Your task to perform on an android device: add a contact Image 0: 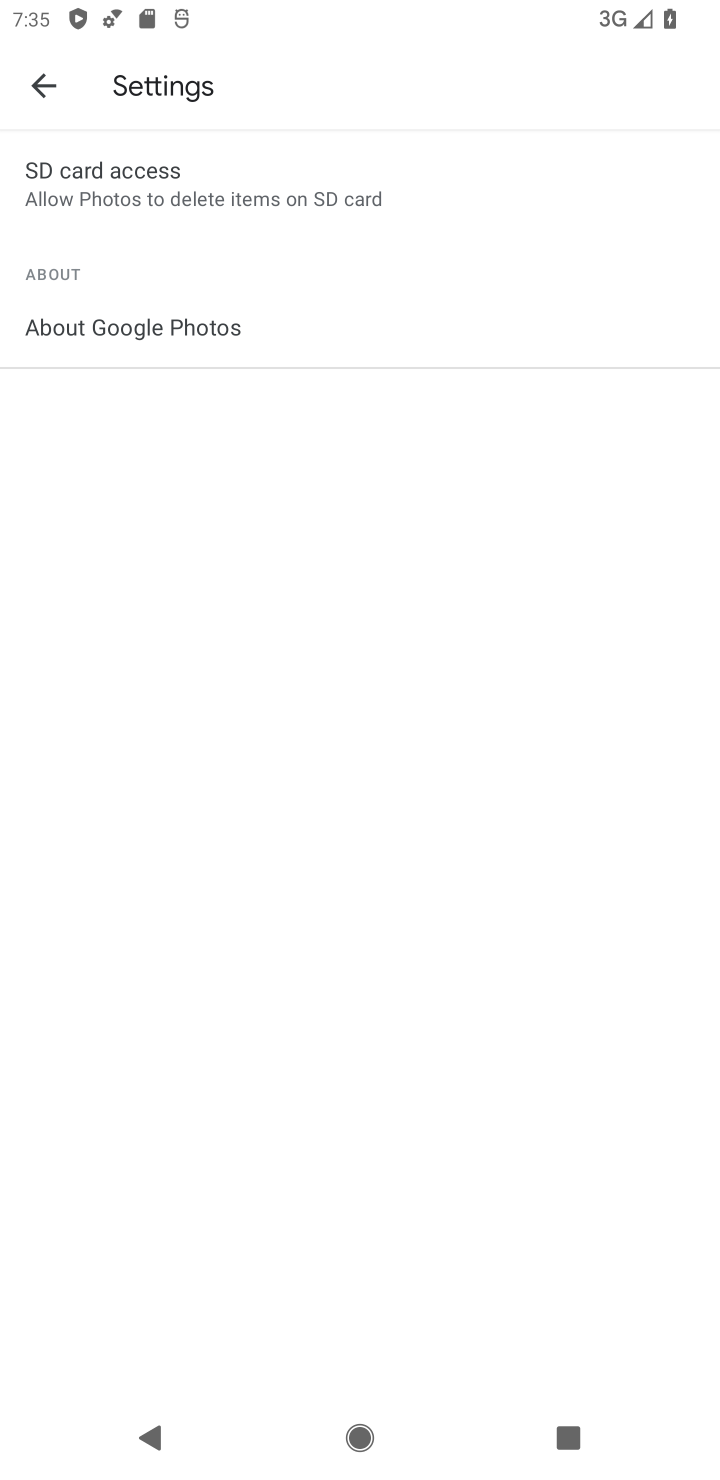
Step 0: press home button
Your task to perform on an android device: add a contact Image 1: 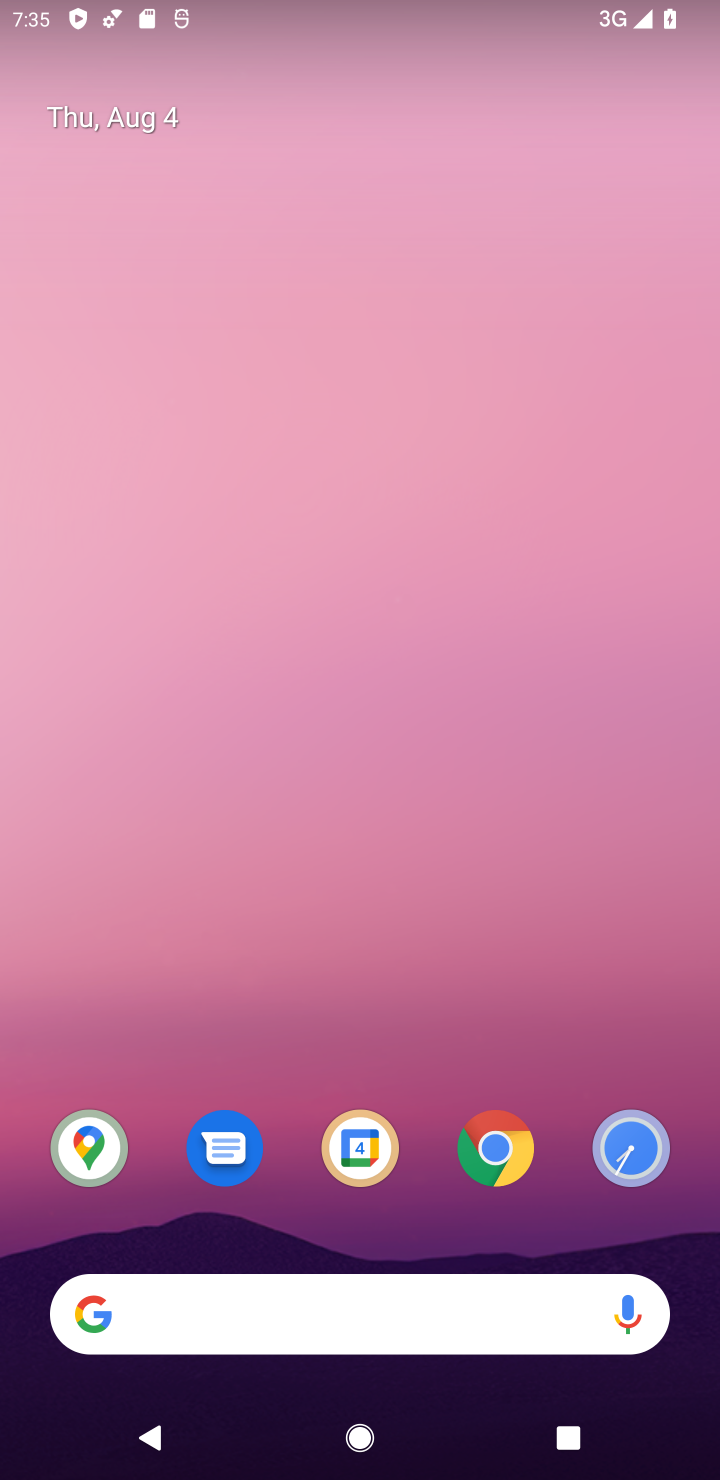
Step 1: drag from (422, 1098) to (422, 222)
Your task to perform on an android device: add a contact Image 2: 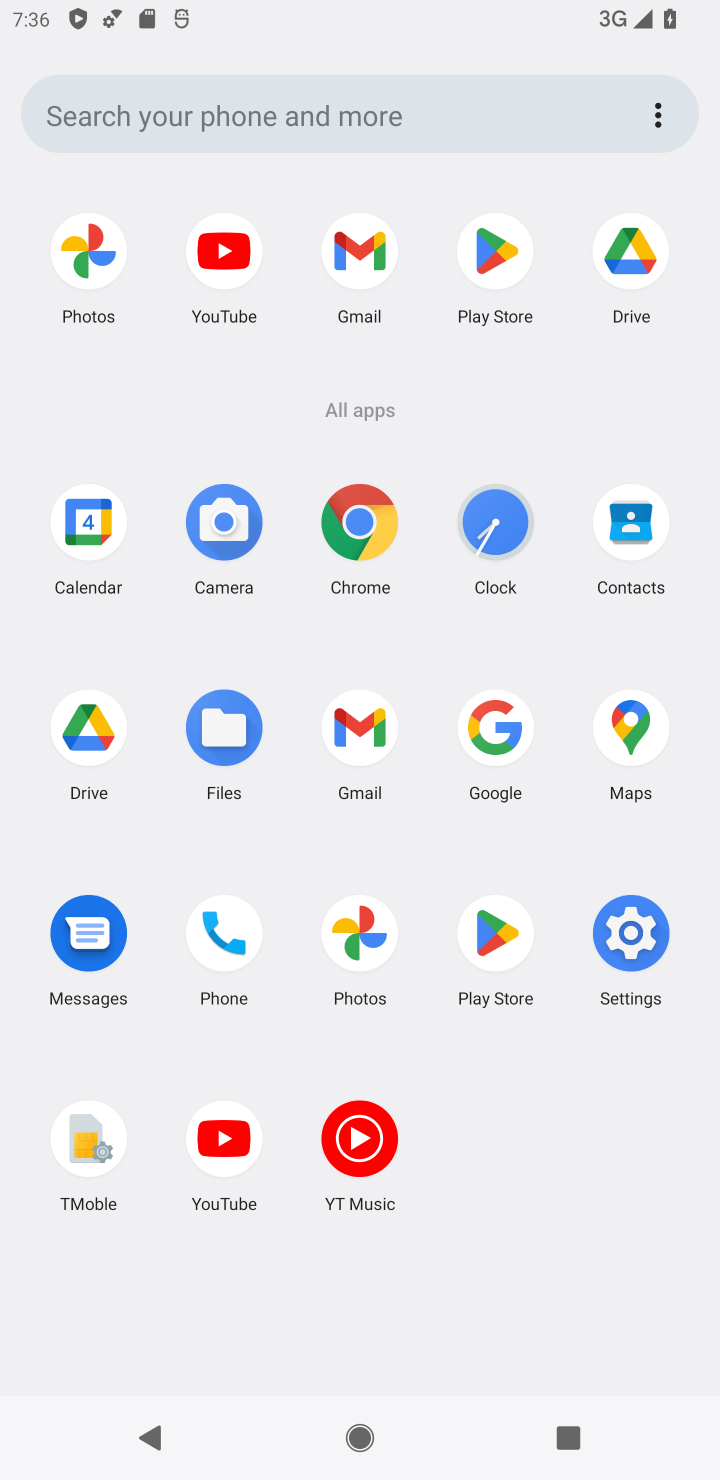
Step 2: click (639, 528)
Your task to perform on an android device: add a contact Image 3: 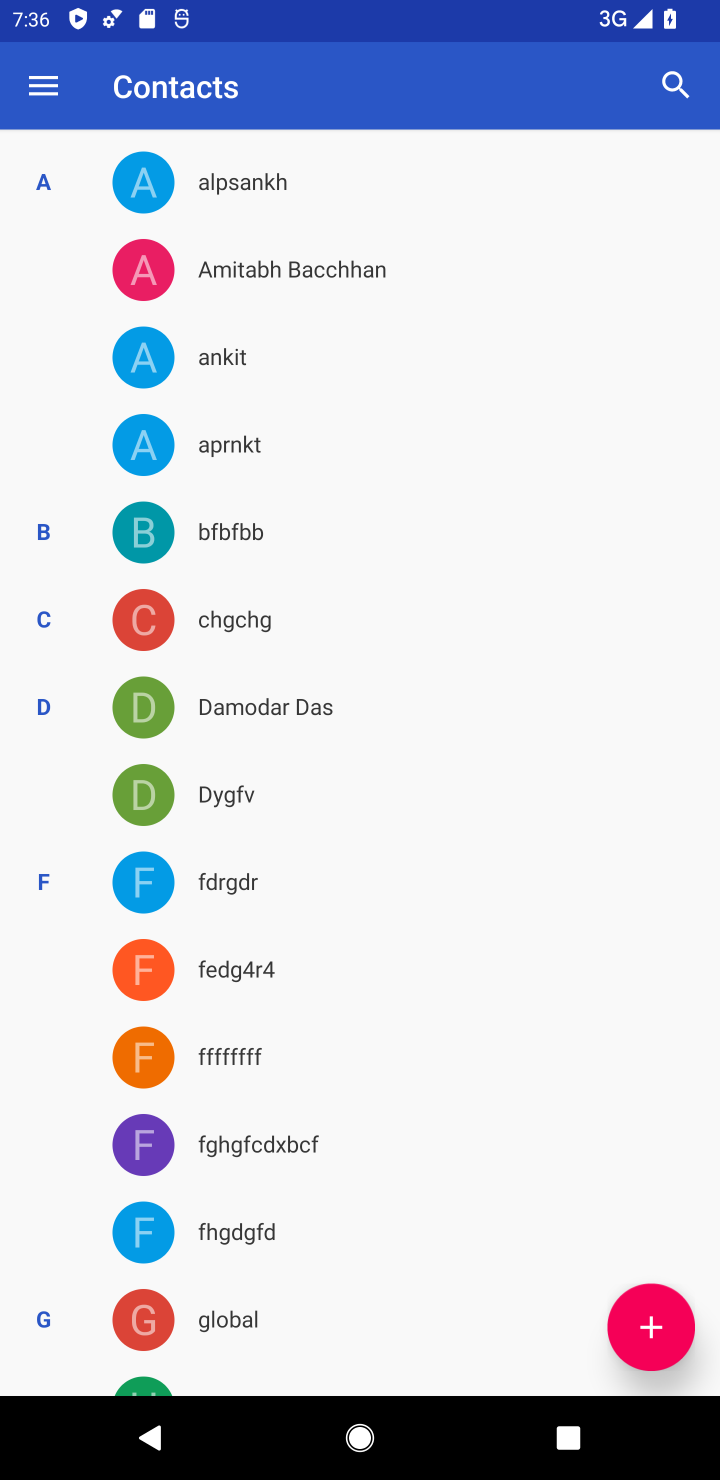
Step 3: click (644, 1318)
Your task to perform on an android device: add a contact Image 4: 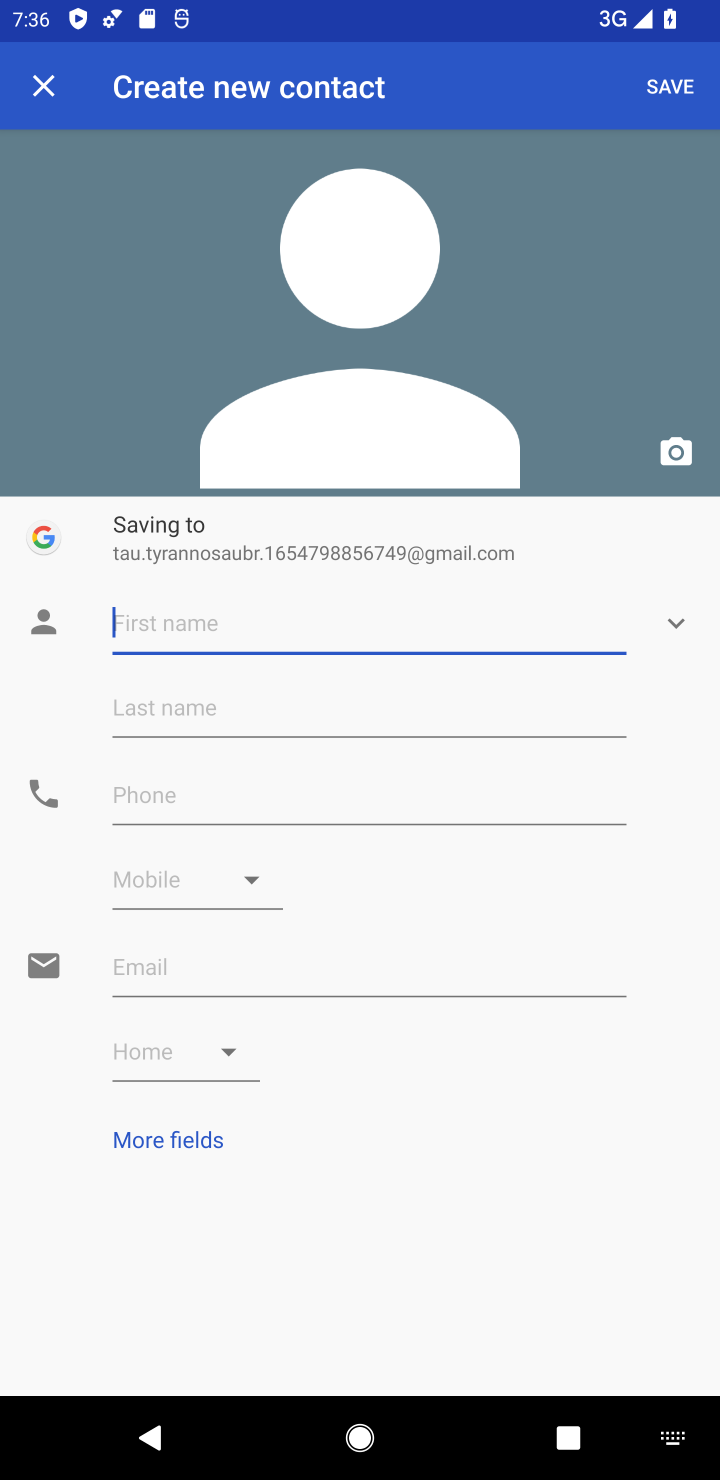
Step 4: type "dhffch"
Your task to perform on an android device: add a contact Image 5: 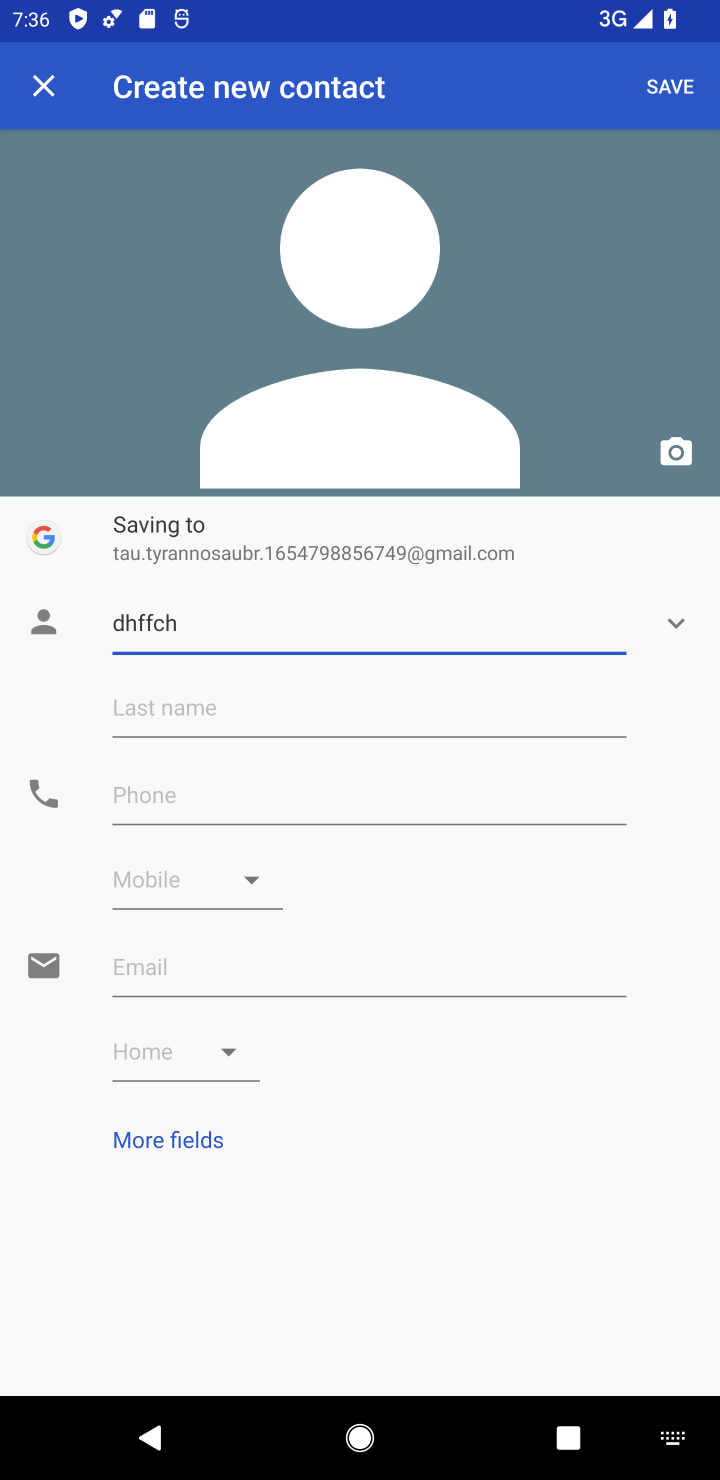
Step 5: click (537, 811)
Your task to perform on an android device: add a contact Image 6: 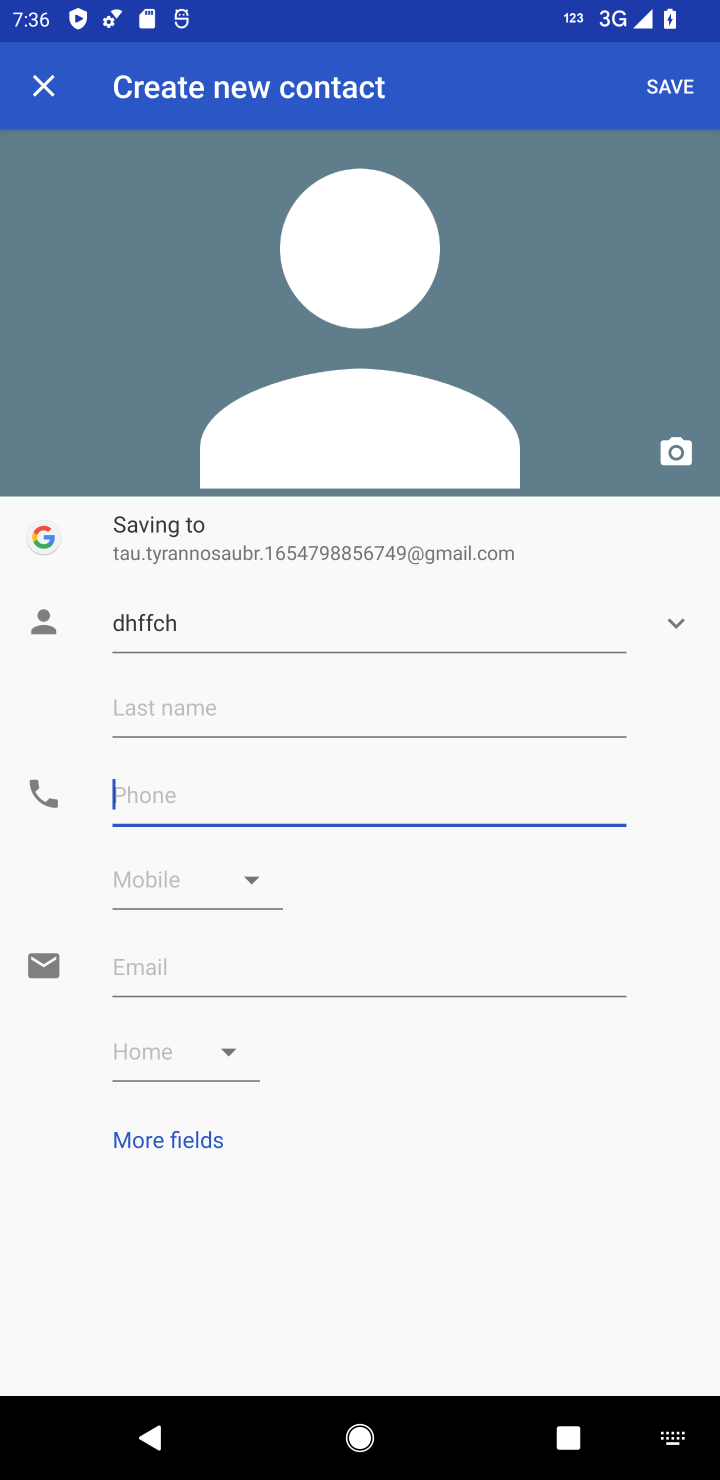
Step 6: type "676697"
Your task to perform on an android device: add a contact Image 7: 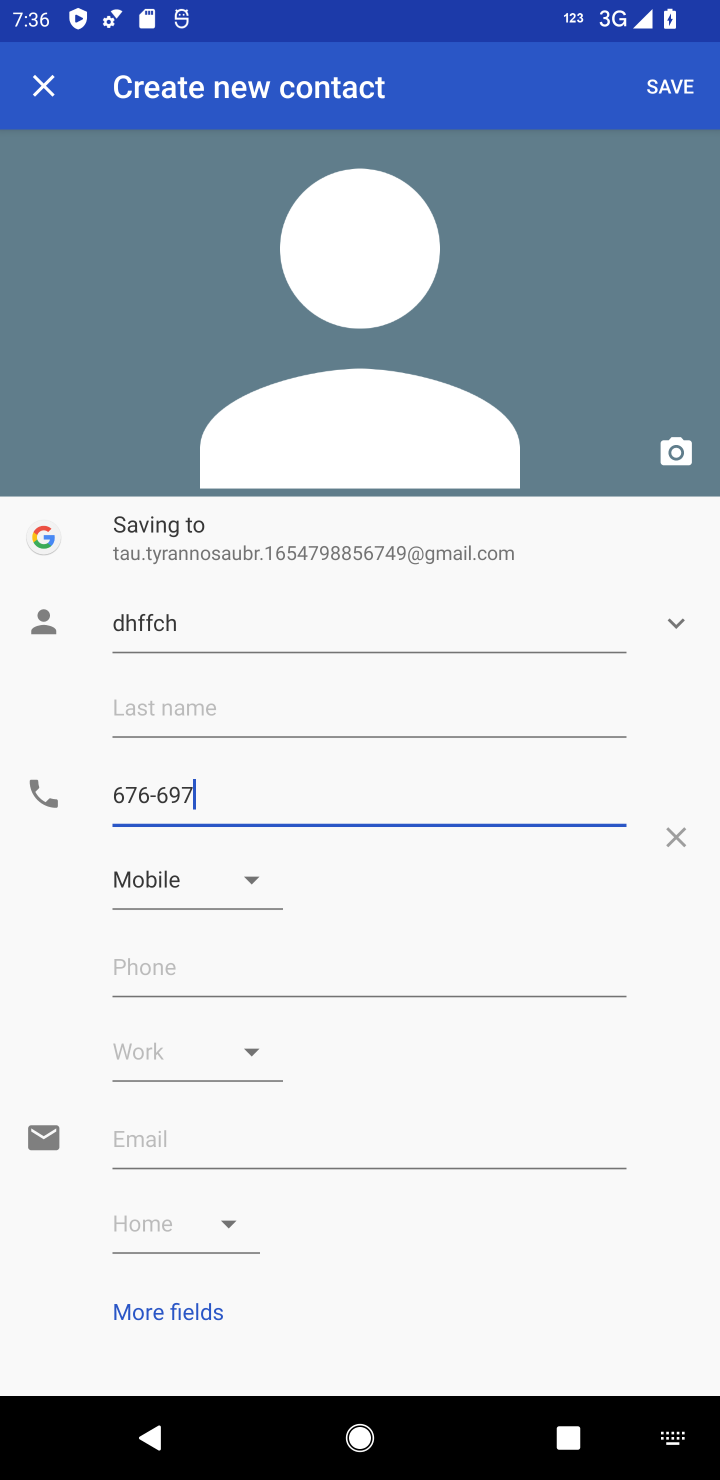
Step 7: click (685, 112)
Your task to perform on an android device: add a contact Image 8: 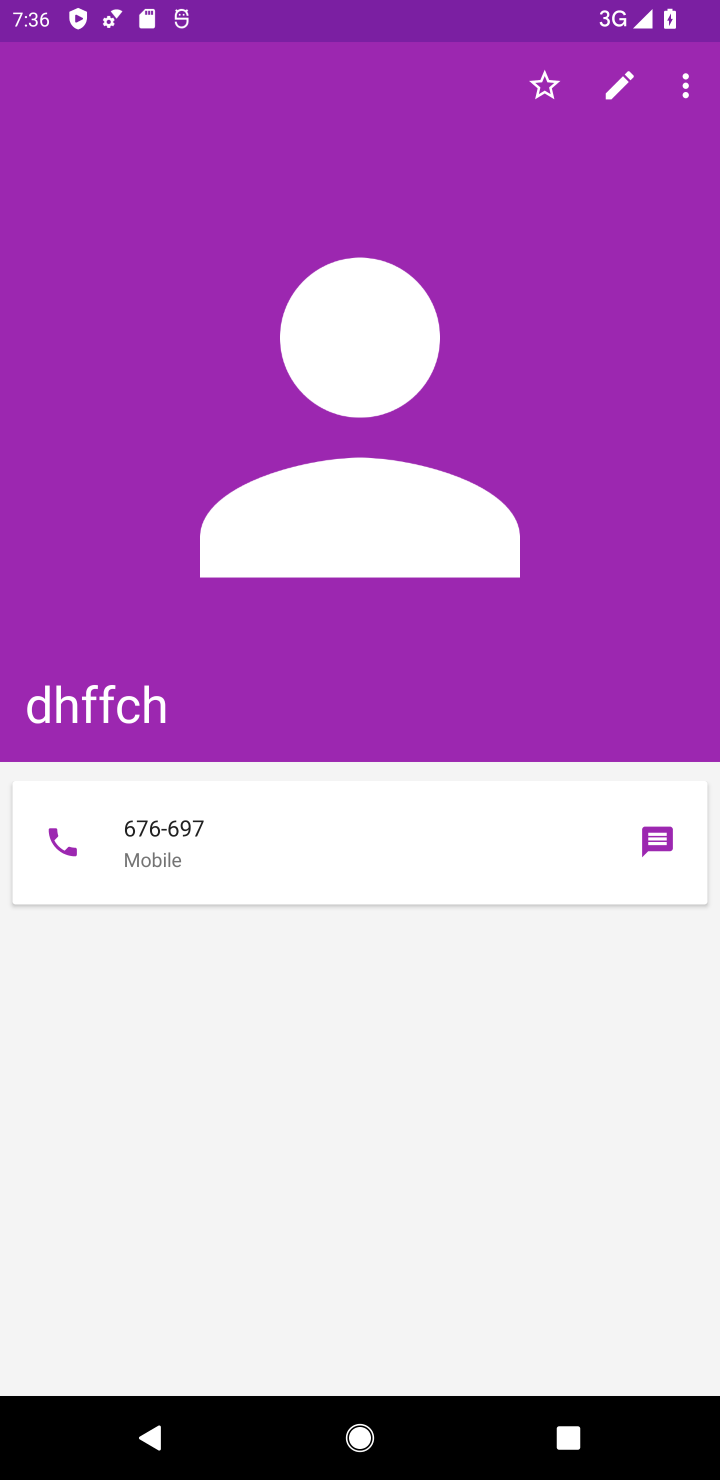
Step 8: task complete